Your task to perform on an android device: Google the capital of Peru Image 0: 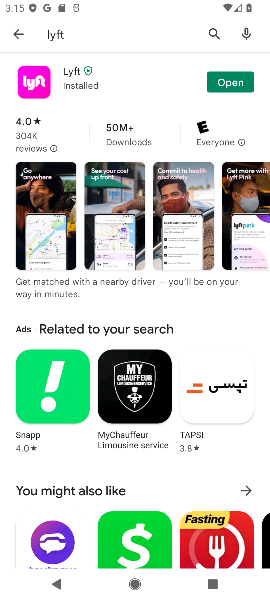
Step 0: press home button
Your task to perform on an android device: Google the capital of Peru Image 1: 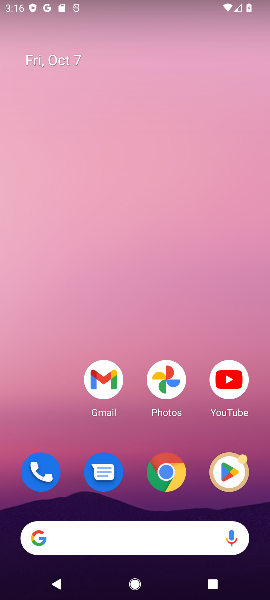
Step 1: click (166, 471)
Your task to perform on an android device: Google the capital of Peru Image 2: 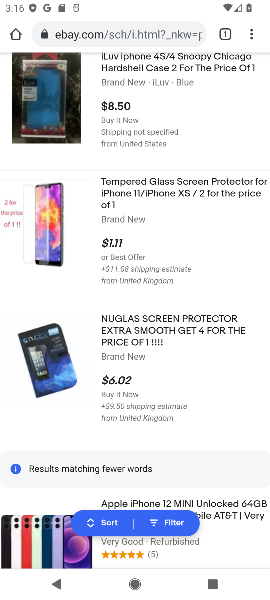
Step 2: click (151, 39)
Your task to perform on an android device: Google the capital of Peru Image 3: 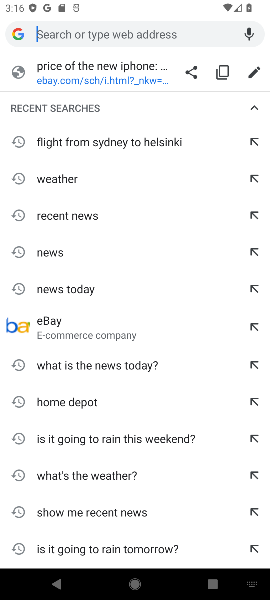
Step 3: type "Capital of Peru"
Your task to perform on an android device: Google the capital of Peru Image 4: 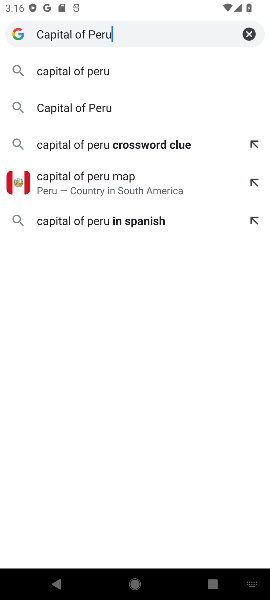
Step 4: click (63, 69)
Your task to perform on an android device: Google the capital of Peru Image 5: 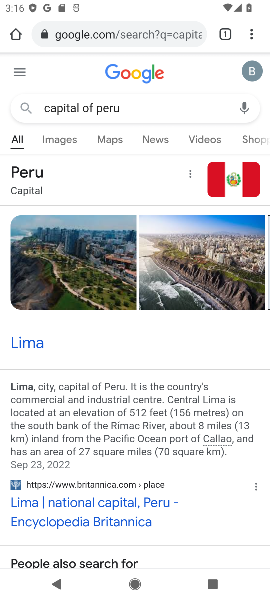
Step 5: task complete